Your task to perform on an android device: open a bookmark in the chrome app Image 0: 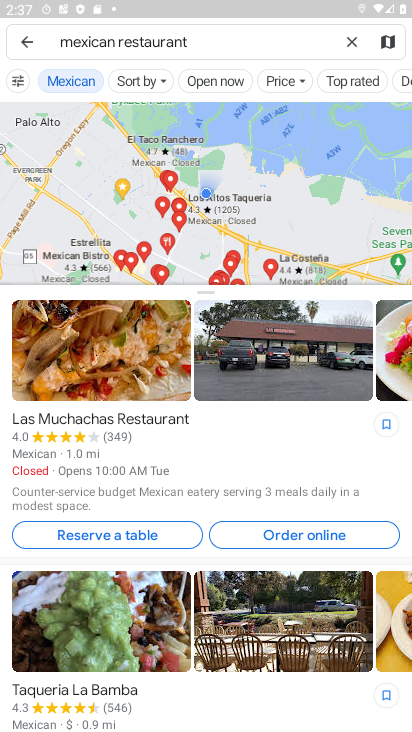
Step 0: press home button
Your task to perform on an android device: open a bookmark in the chrome app Image 1: 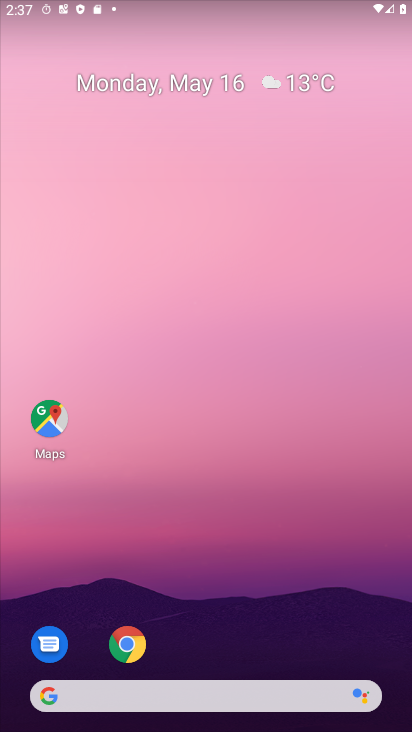
Step 1: drag from (216, 668) to (262, 106)
Your task to perform on an android device: open a bookmark in the chrome app Image 2: 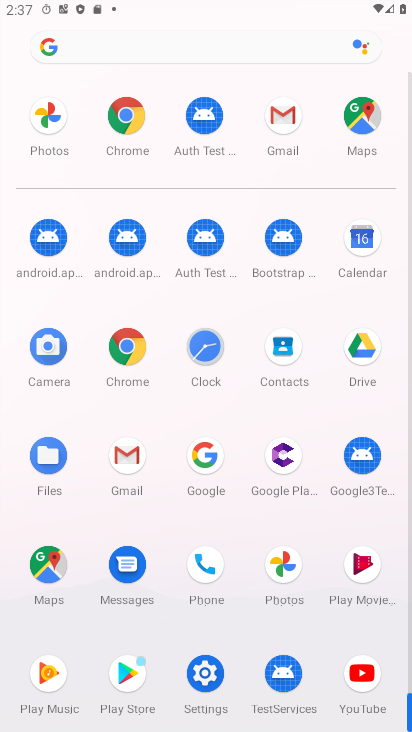
Step 2: click (127, 139)
Your task to perform on an android device: open a bookmark in the chrome app Image 3: 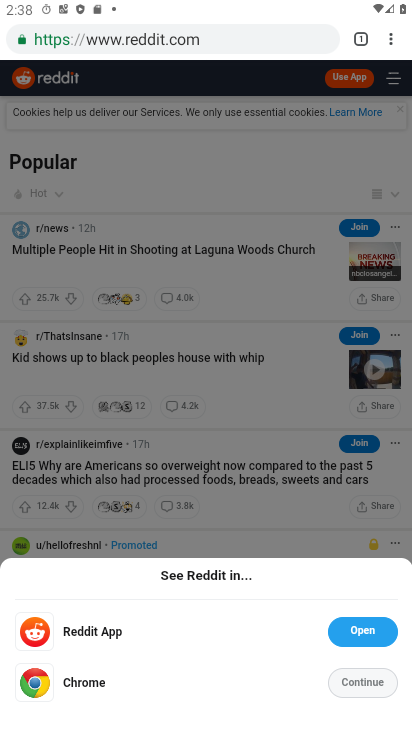
Step 3: click (400, 51)
Your task to perform on an android device: open a bookmark in the chrome app Image 4: 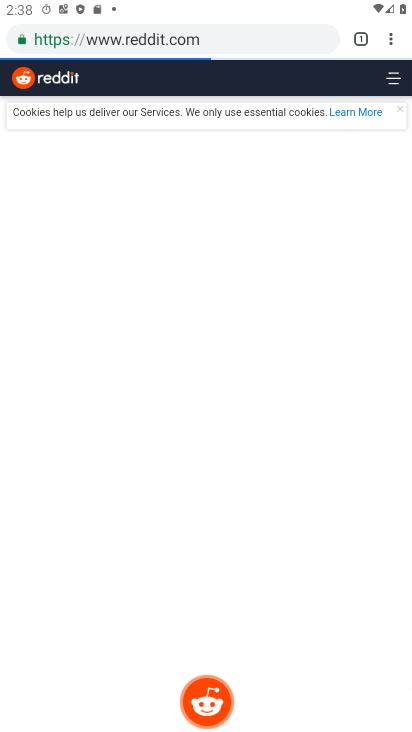
Step 4: click (391, 49)
Your task to perform on an android device: open a bookmark in the chrome app Image 5: 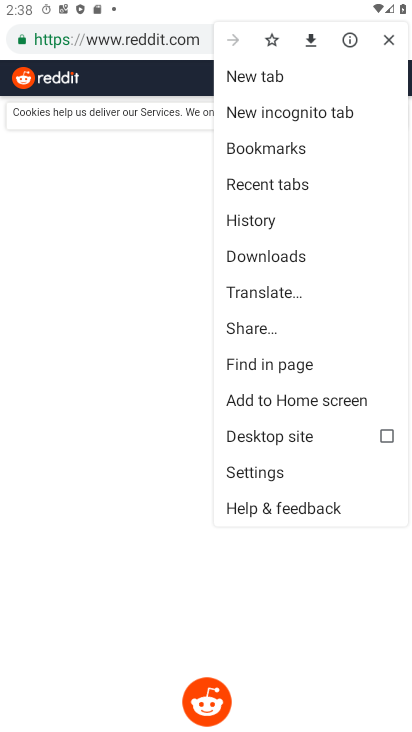
Step 5: click (307, 156)
Your task to perform on an android device: open a bookmark in the chrome app Image 6: 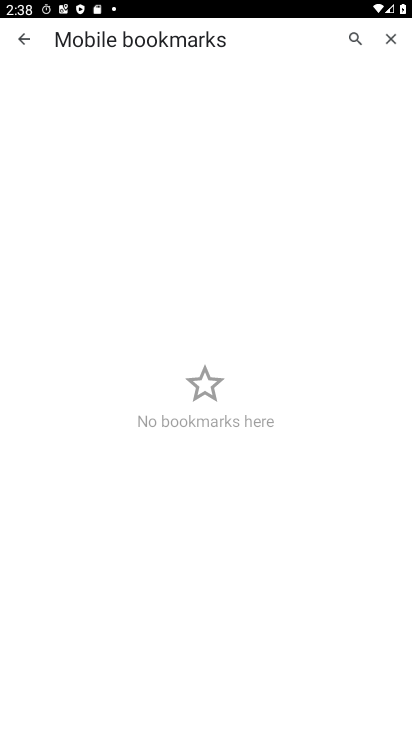
Step 6: task complete